Your task to perform on an android device: Clear the cart on bestbuy. Add "razer thresher" to the cart on bestbuy, then select checkout. Image 0: 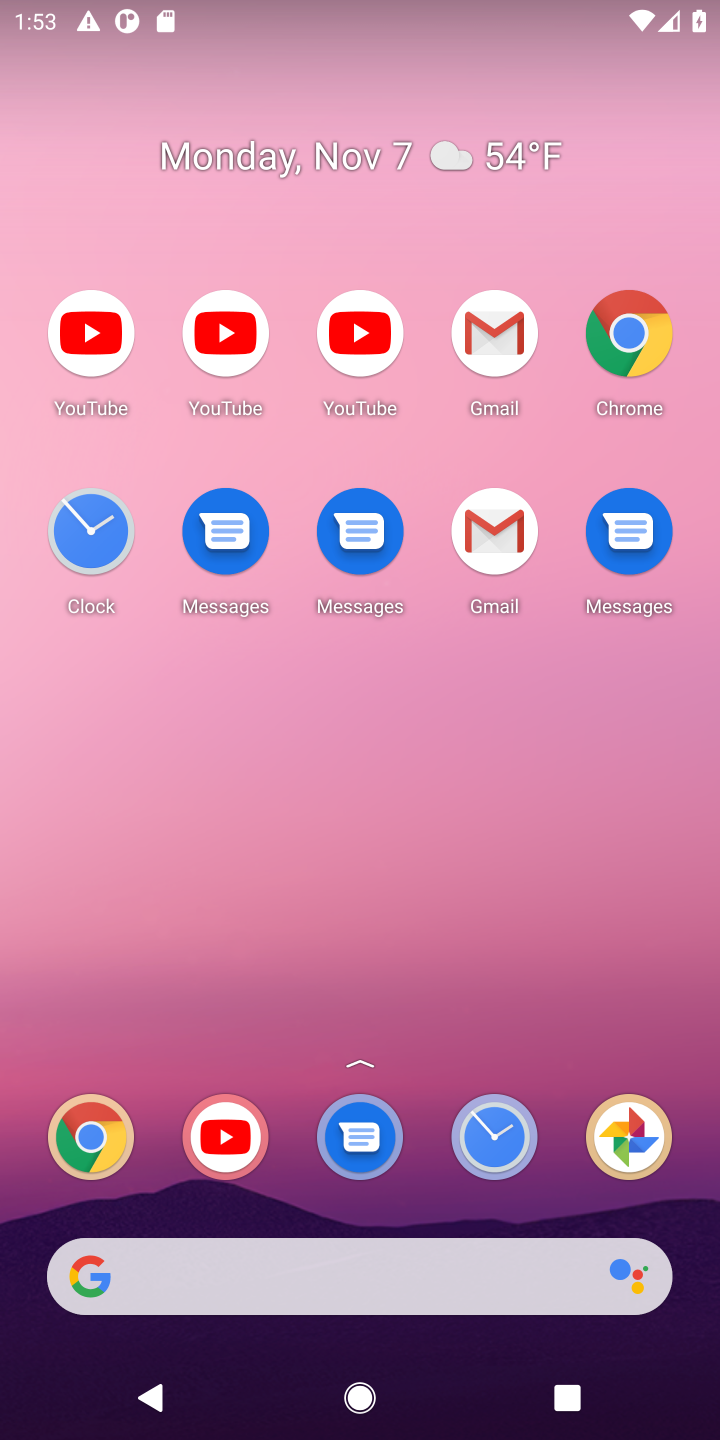
Step 0: drag from (428, 1213) to (403, 195)
Your task to perform on an android device: Clear the cart on bestbuy. Add "razer thresher" to the cart on bestbuy, then select checkout. Image 1: 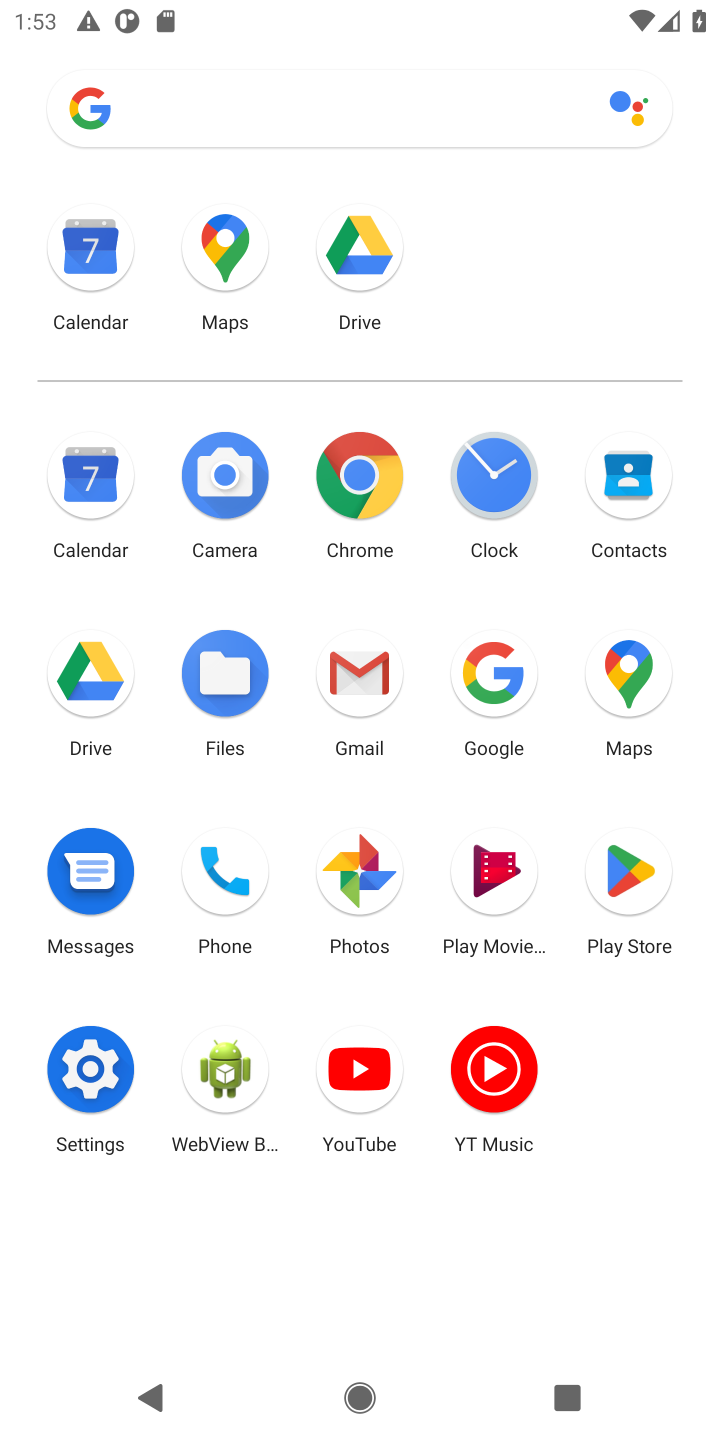
Step 1: click (366, 471)
Your task to perform on an android device: Clear the cart on bestbuy. Add "razer thresher" to the cart on bestbuy, then select checkout. Image 2: 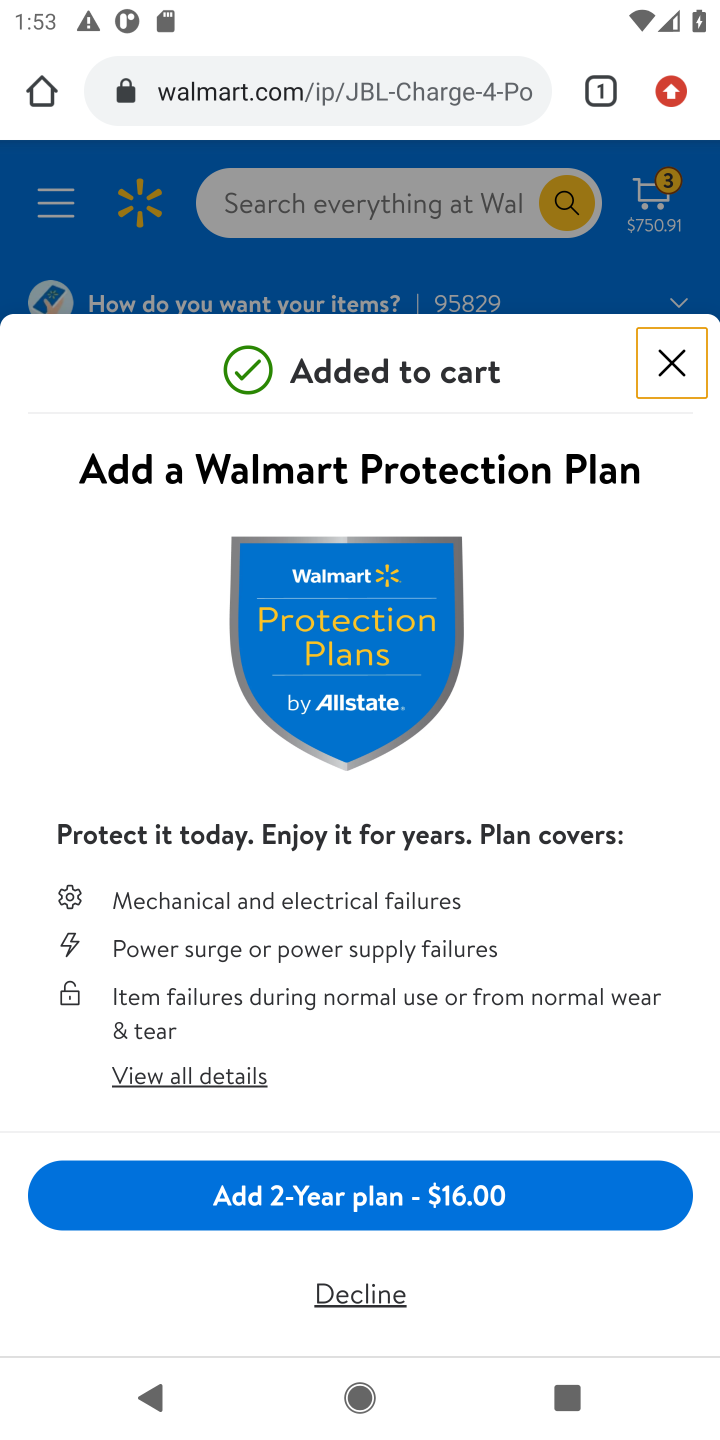
Step 2: click (371, 82)
Your task to perform on an android device: Clear the cart on bestbuy. Add "razer thresher" to the cart on bestbuy, then select checkout. Image 3: 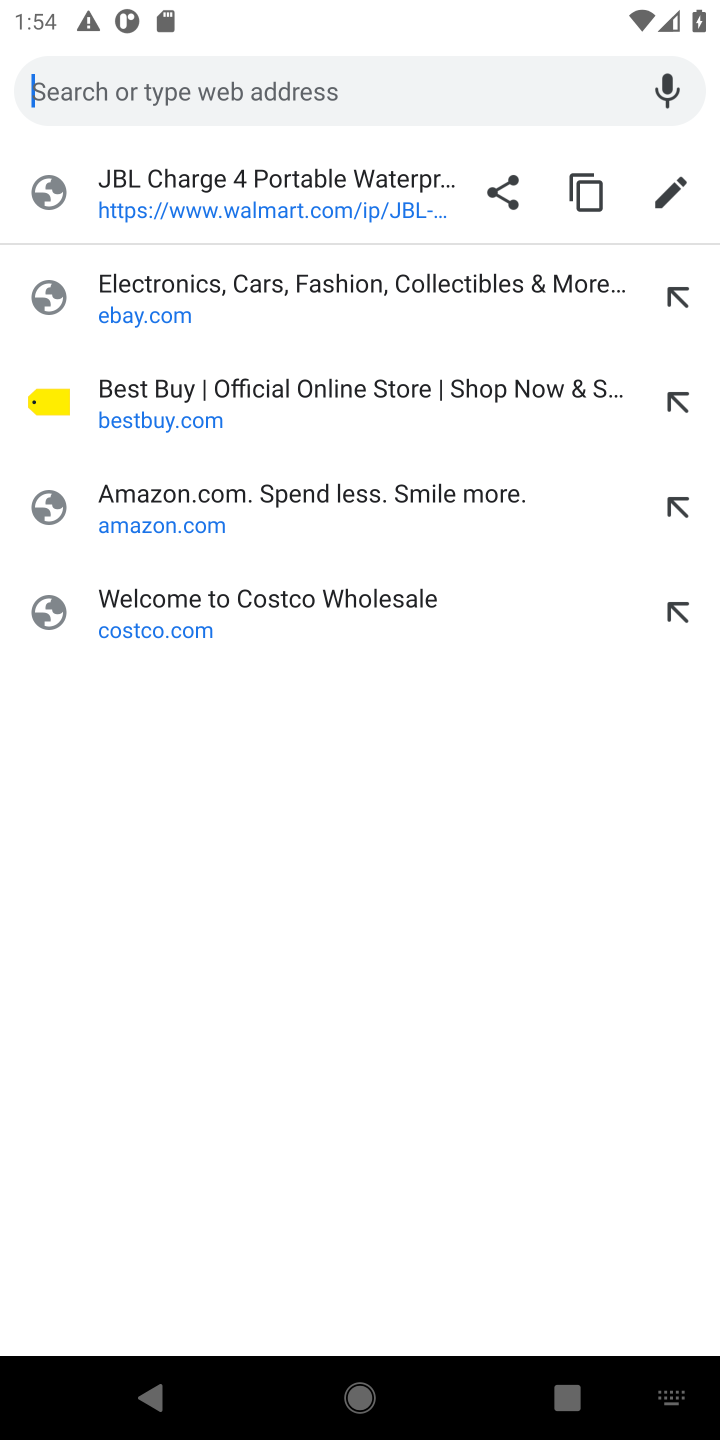
Step 3: type "bestbuy.com"
Your task to perform on an android device: Clear the cart on bestbuy. Add "razer thresher" to the cart on bestbuy, then select checkout. Image 4: 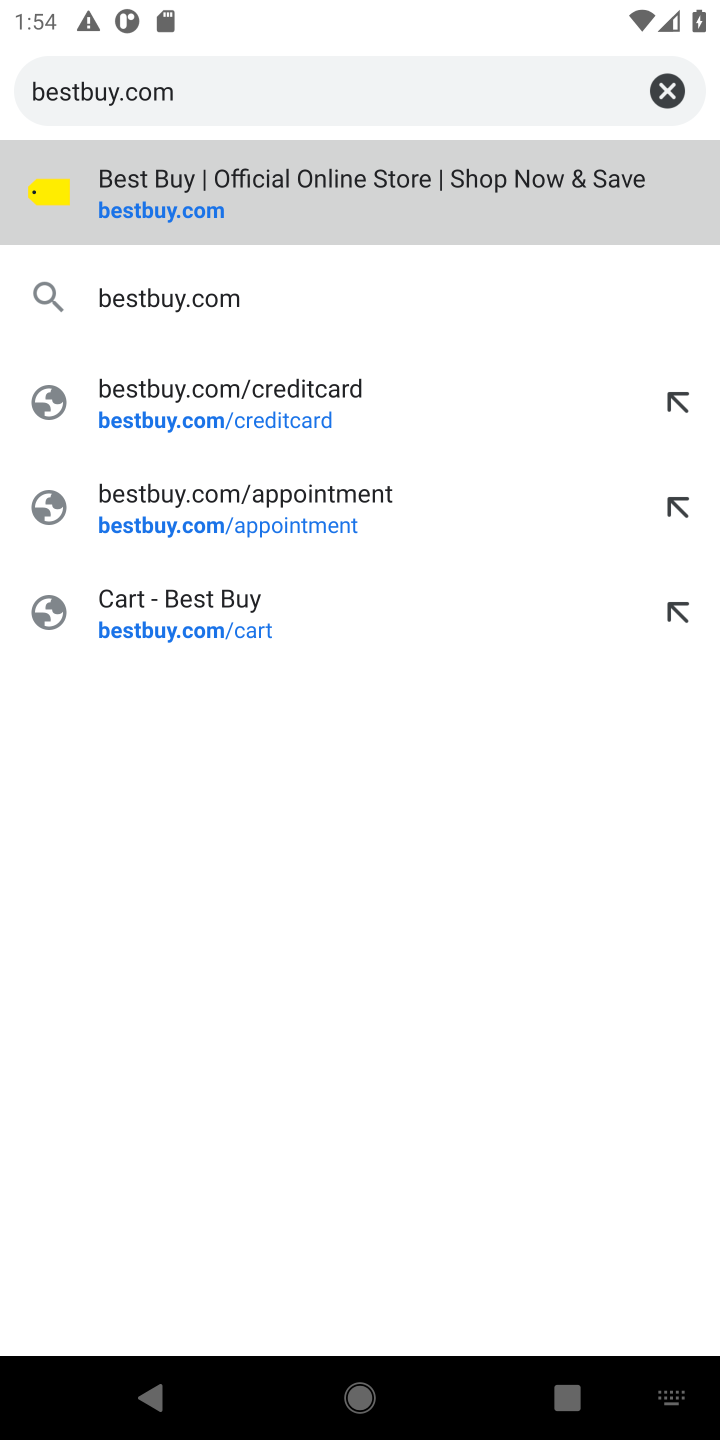
Step 4: press enter
Your task to perform on an android device: Clear the cart on bestbuy. Add "razer thresher" to the cart on bestbuy, then select checkout. Image 5: 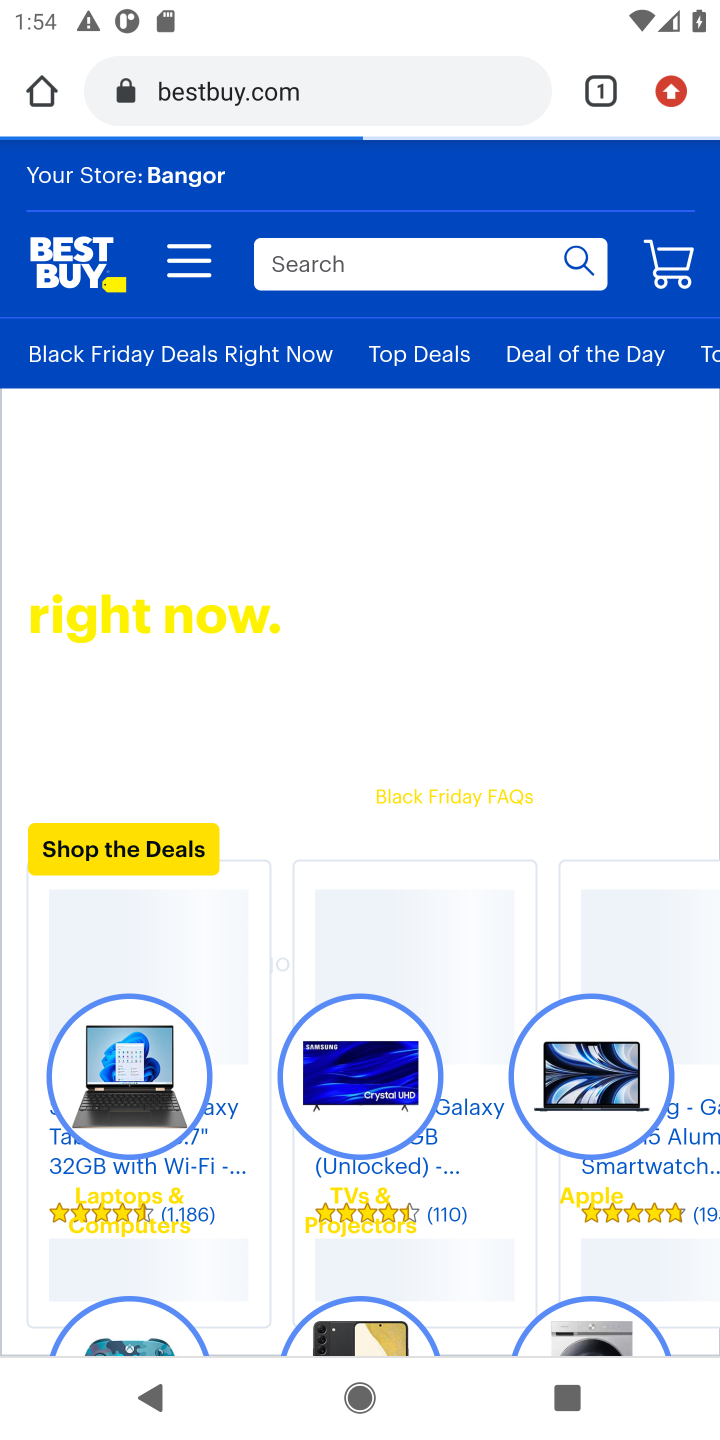
Step 5: click (686, 262)
Your task to perform on an android device: Clear the cart on bestbuy. Add "razer thresher" to the cart on bestbuy, then select checkout. Image 6: 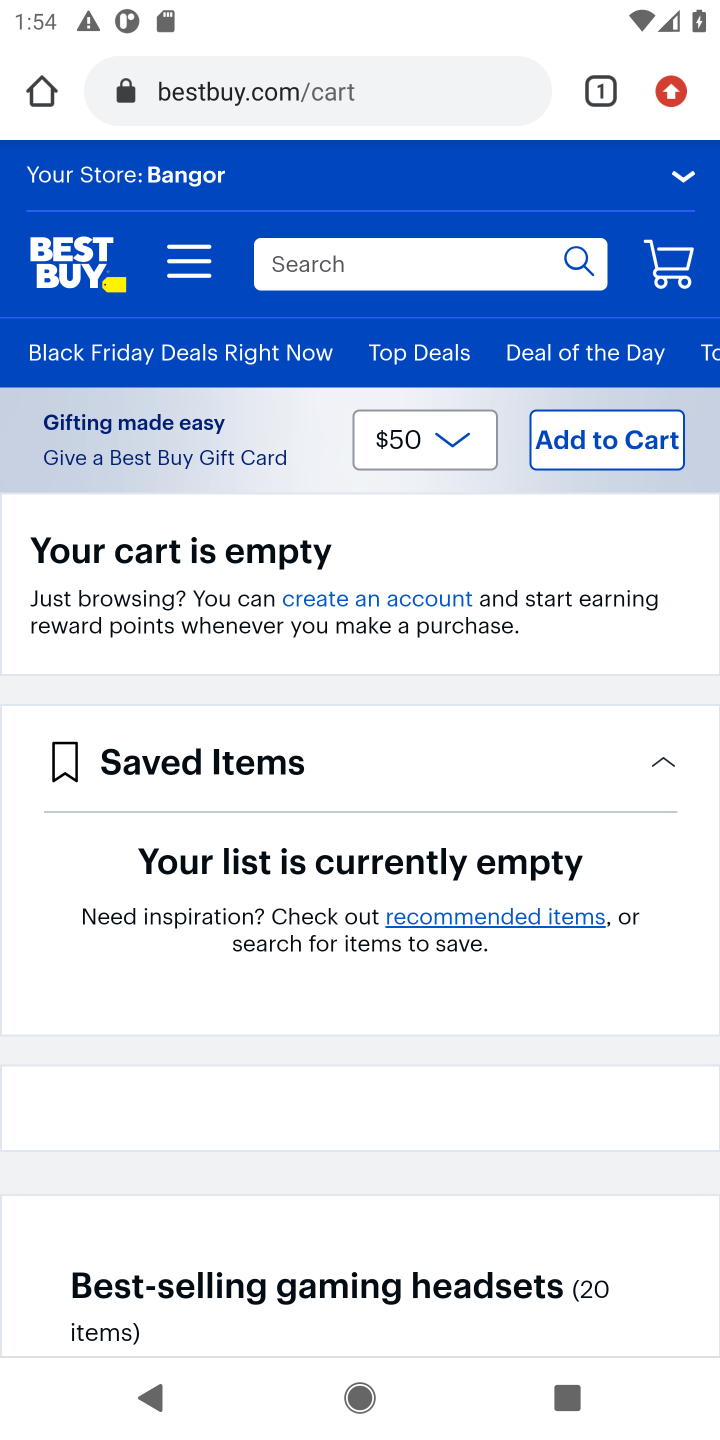
Step 6: click (411, 262)
Your task to perform on an android device: Clear the cart on bestbuy. Add "razer thresher" to the cart on bestbuy, then select checkout. Image 7: 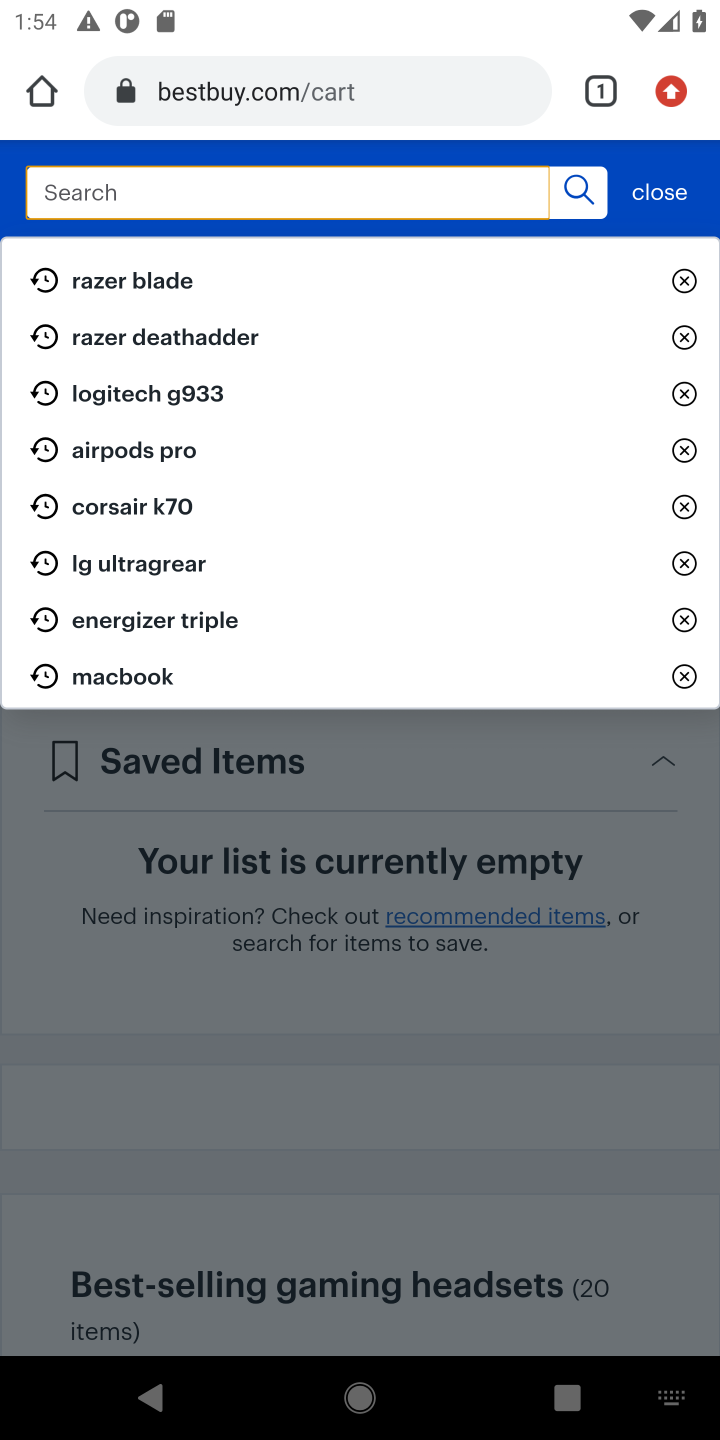
Step 7: type "razer thresher"
Your task to perform on an android device: Clear the cart on bestbuy. Add "razer thresher" to the cart on bestbuy, then select checkout. Image 8: 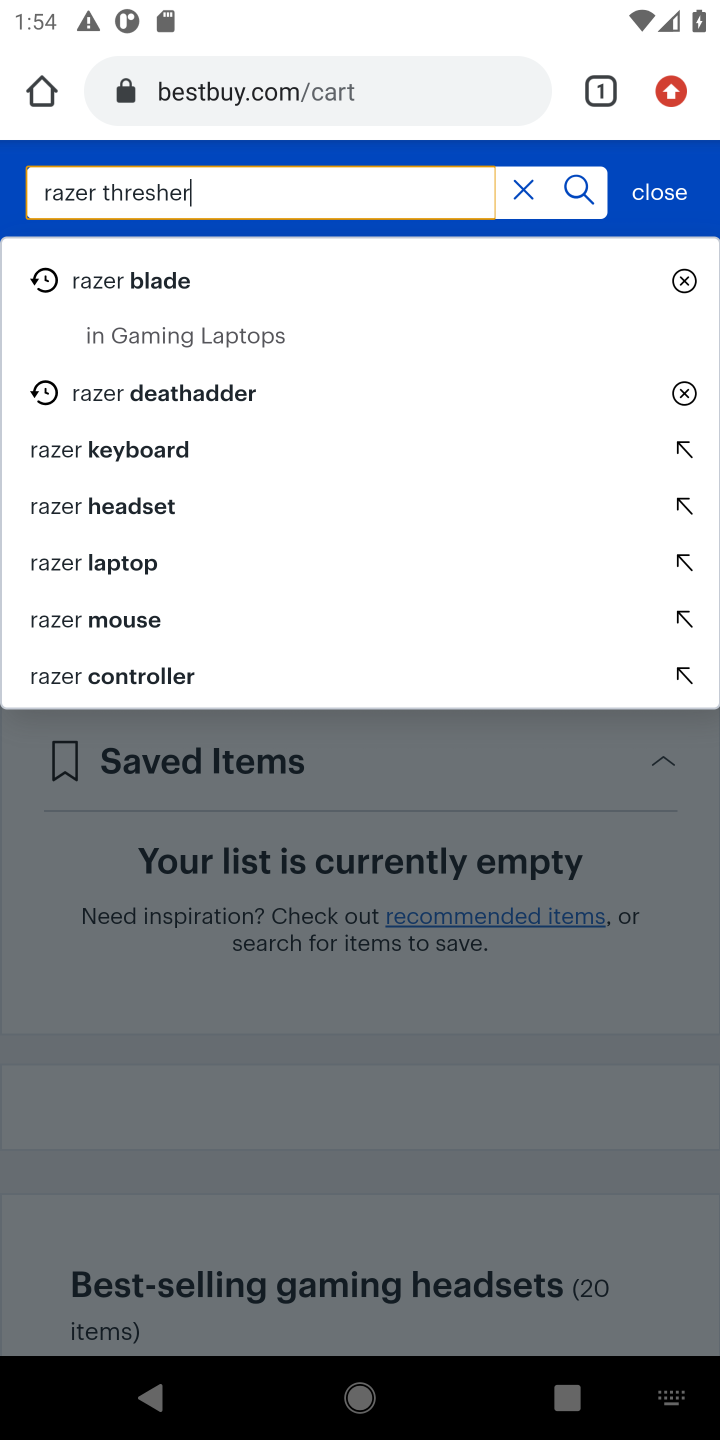
Step 8: press enter
Your task to perform on an android device: Clear the cart on bestbuy. Add "razer thresher" to the cart on bestbuy, then select checkout. Image 9: 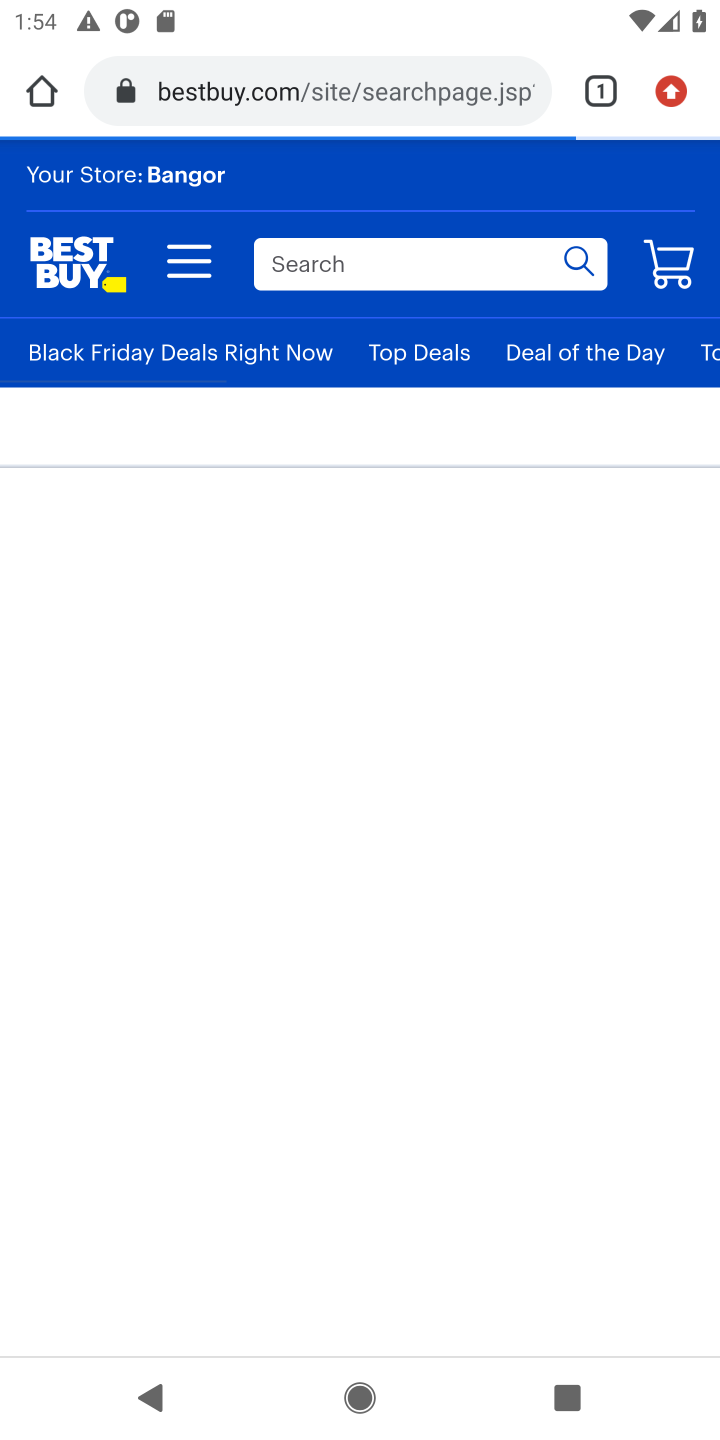
Step 9: press enter
Your task to perform on an android device: Clear the cart on bestbuy. Add "razer thresher" to the cart on bestbuy, then select checkout. Image 10: 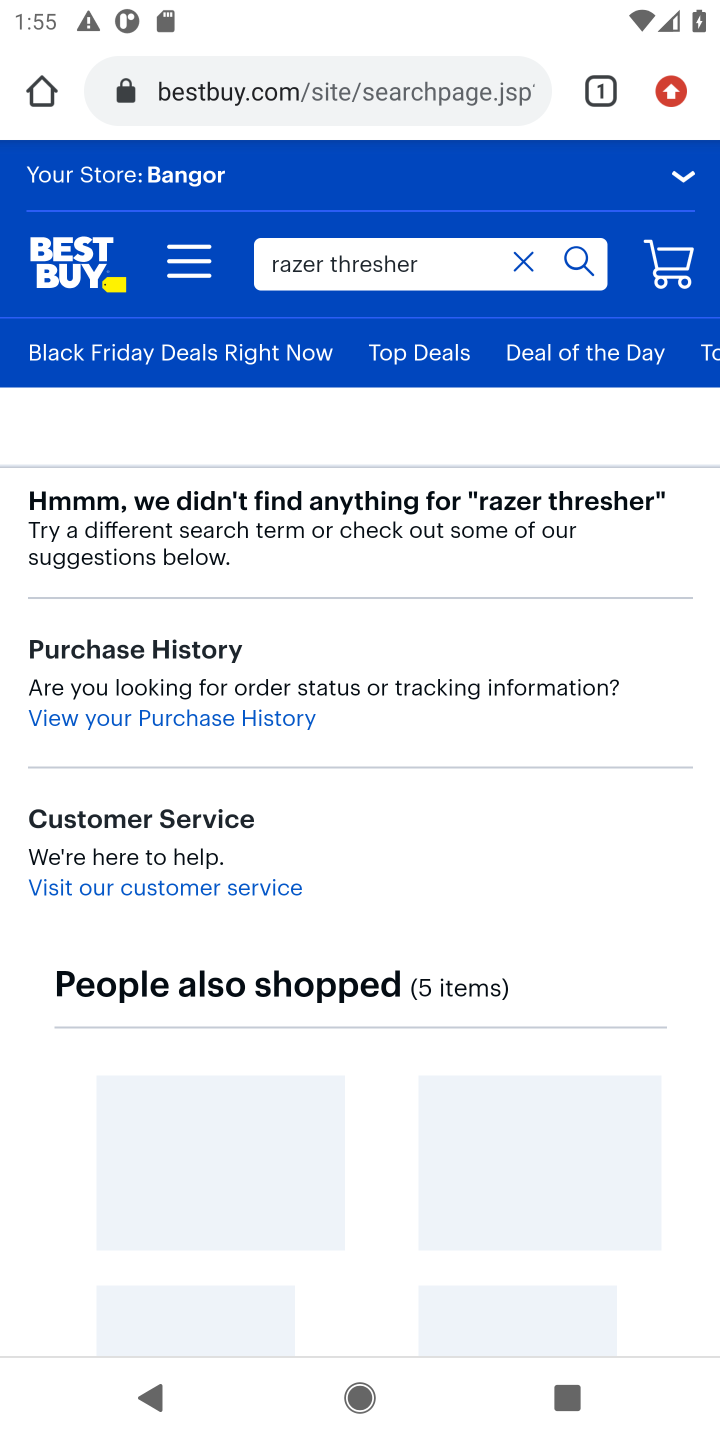
Step 10: task complete